Your task to perform on an android device: Show me popular videos on Youtube Image 0: 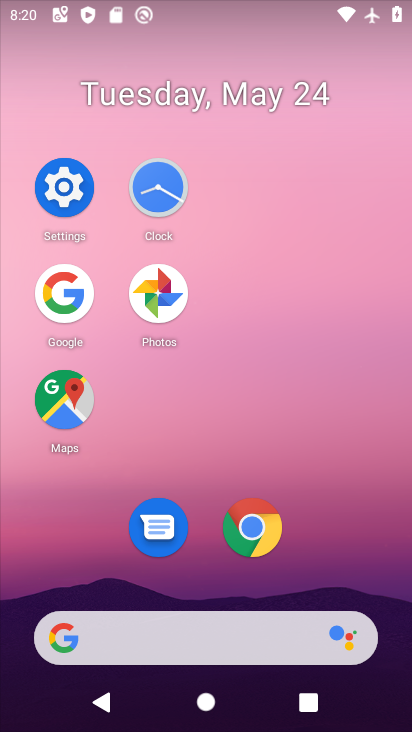
Step 0: drag from (335, 404) to (310, 197)
Your task to perform on an android device: Show me popular videos on Youtube Image 1: 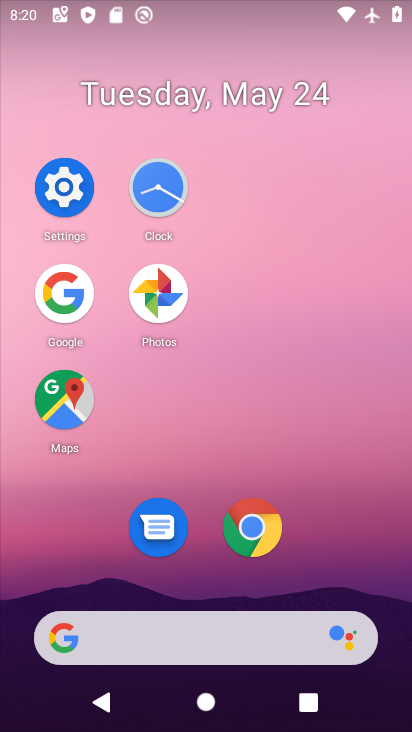
Step 1: drag from (332, 545) to (310, 280)
Your task to perform on an android device: Show me popular videos on Youtube Image 2: 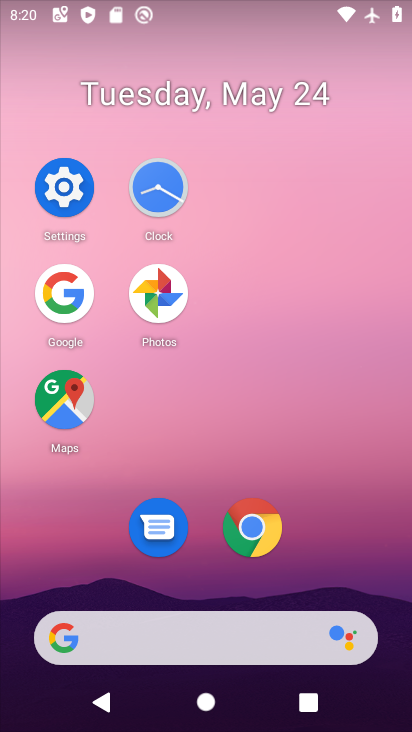
Step 2: drag from (320, 581) to (286, 251)
Your task to perform on an android device: Show me popular videos on Youtube Image 3: 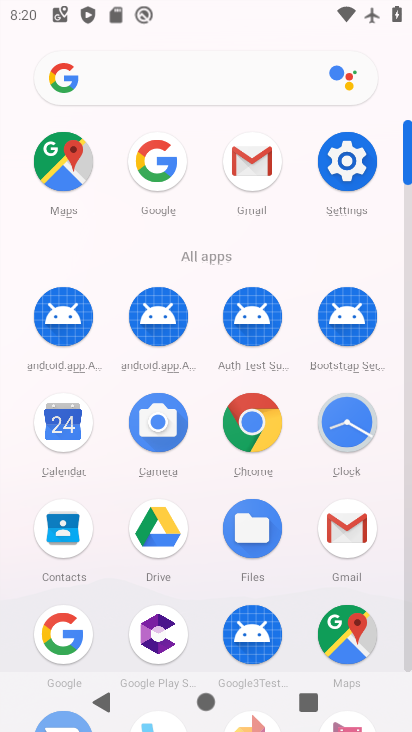
Step 3: drag from (282, 476) to (267, 247)
Your task to perform on an android device: Show me popular videos on Youtube Image 4: 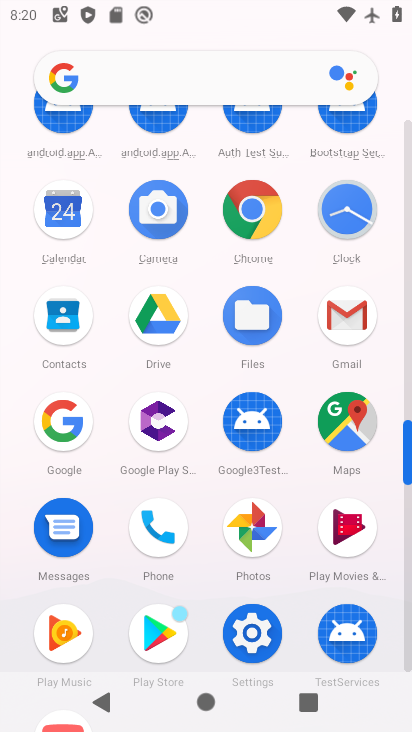
Step 4: drag from (292, 548) to (274, 342)
Your task to perform on an android device: Show me popular videos on Youtube Image 5: 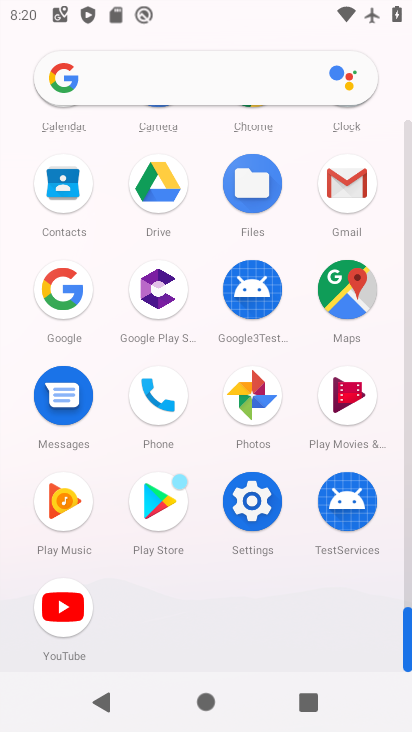
Step 5: drag from (58, 606) to (136, 403)
Your task to perform on an android device: Show me popular videos on Youtube Image 6: 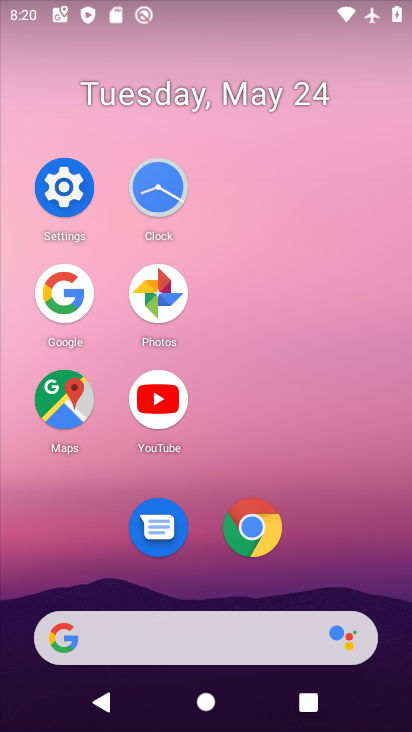
Step 6: click (153, 410)
Your task to perform on an android device: Show me popular videos on Youtube Image 7: 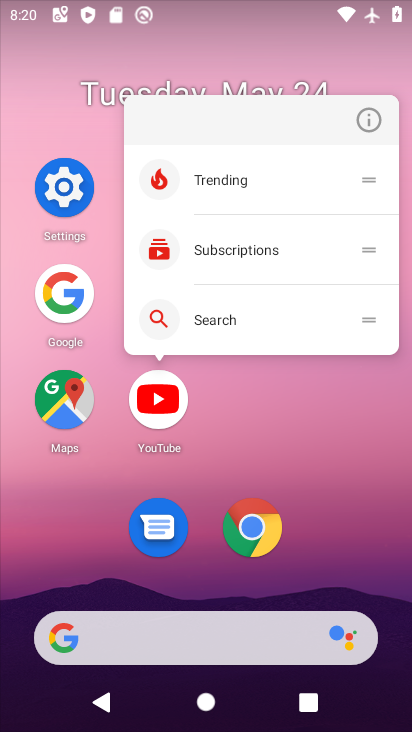
Step 7: click (153, 410)
Your task to perform on an android device: Show me popular videos on Youtube Image 8: 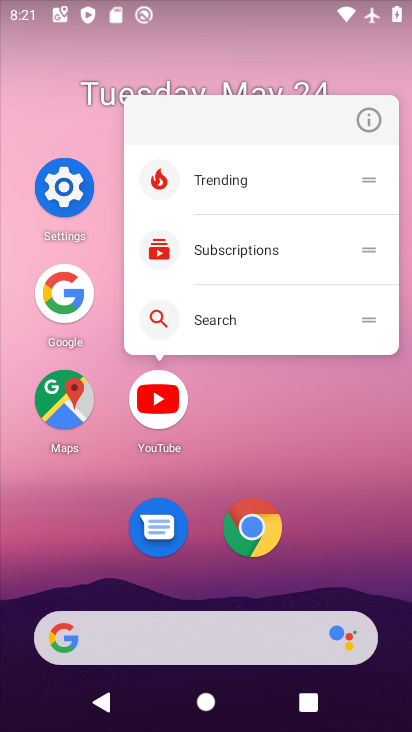
Step 8: click (153, 410)
Your task to perform on an android device: Show me popular videos on Youtube Image 9: 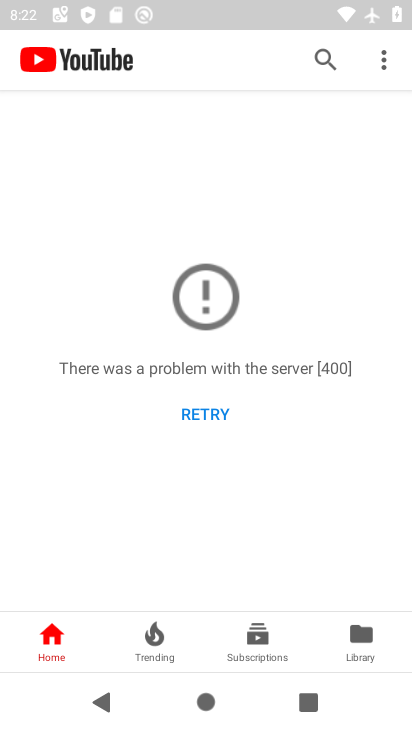
Step 9: task complete